Your task to perform on an android device: set default search engine in the chrome app Image 0: 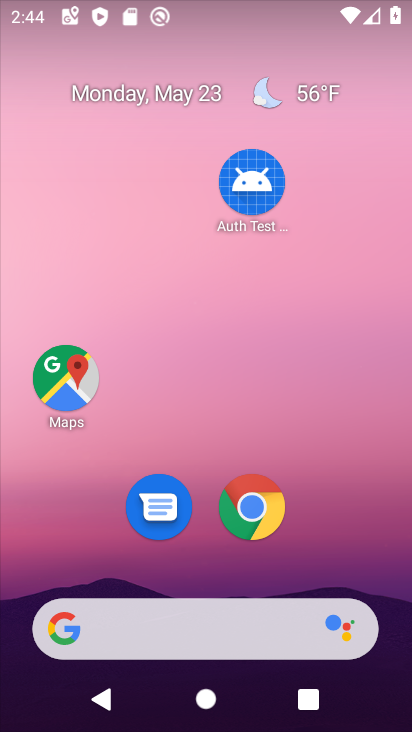
Step 0: drag from (270, 662) to (214, 21)
Your task to perform on an android device: set default search engine in the chrome app Image 1: 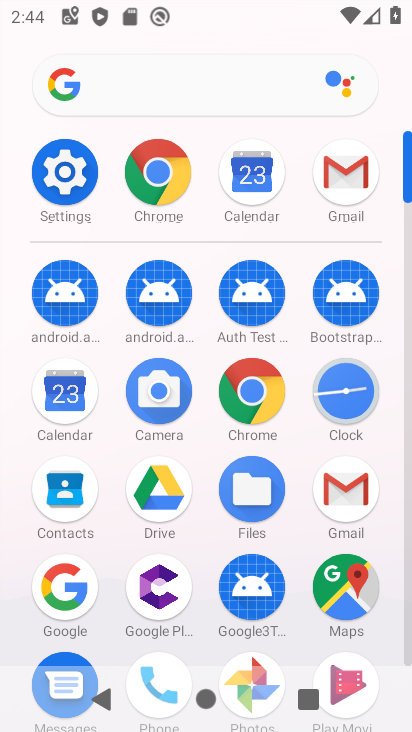
Step 1: click (154, 176)
Your task to perform on an android device: set default search engine in the chrome app Image 2: 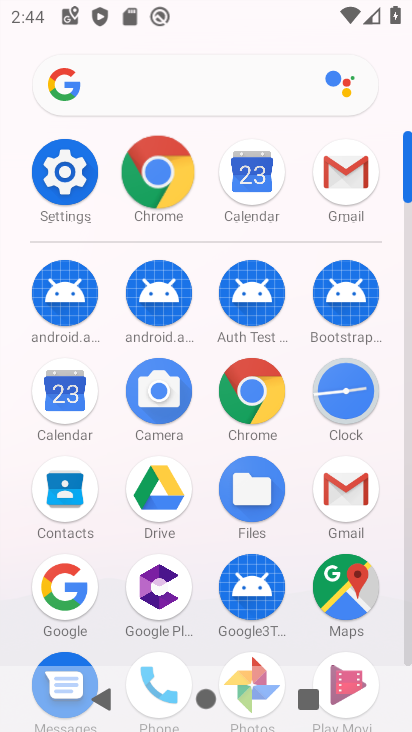
Step 2: click (154, 175)
Your task to perform on an android device: set default search engine in the chrome app Image 3: 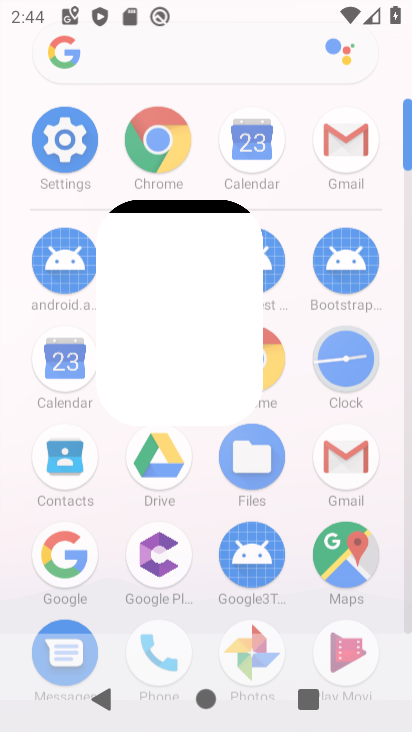
Step 3: click (154, 175)
Your task to perform on an android device: set default search engine in the chrome app Image 4: 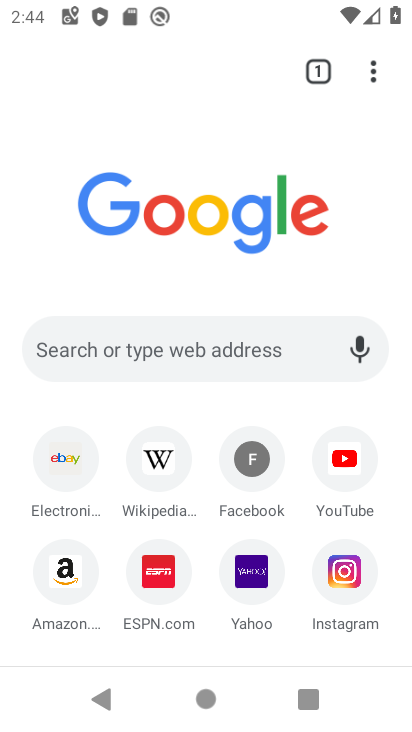
Step 4: drag from (371, 69) to (103, 496)
Your task to perform on an android device: set default search engine in the chrome app Image 5: 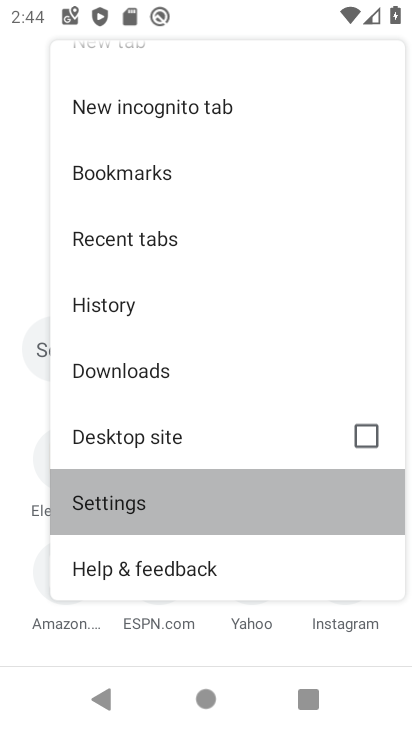
Step 5: click (103, 496)
Your task to perform on an android device: set default search engine in the chrome app Image 6: 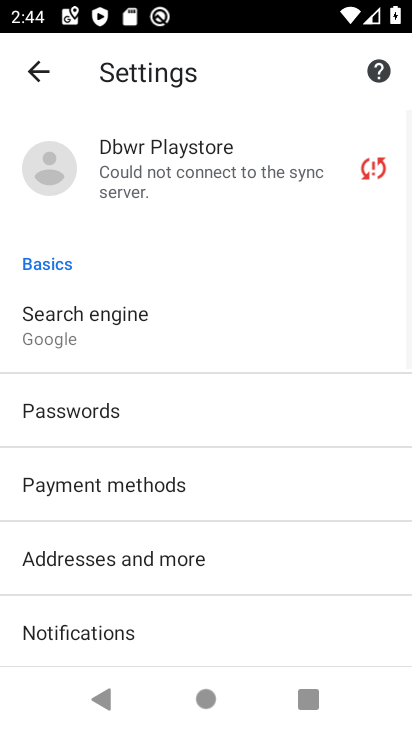
Step 6: drag from (159, 534) to (160, 95)
Your task to perform on an android device: set default search engine in the chrome app Image 7: 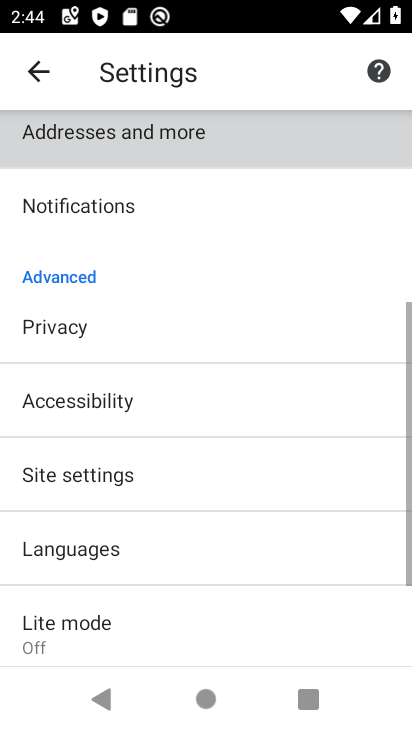
Step 7: drag from (204, 261) to (218, 97)
Your task to perform on an android device: set default search engine in the chrome app Image 8: 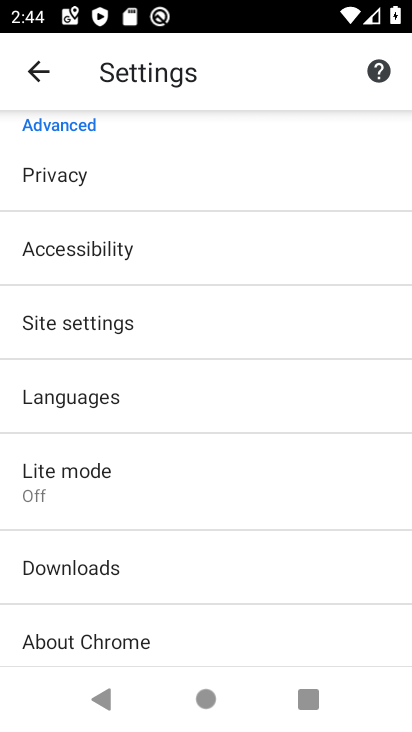
Step 8: drag from (49, 200) to (53, 600)
Your task to perform on an android device: set default search engine in the chrome app Image 9: 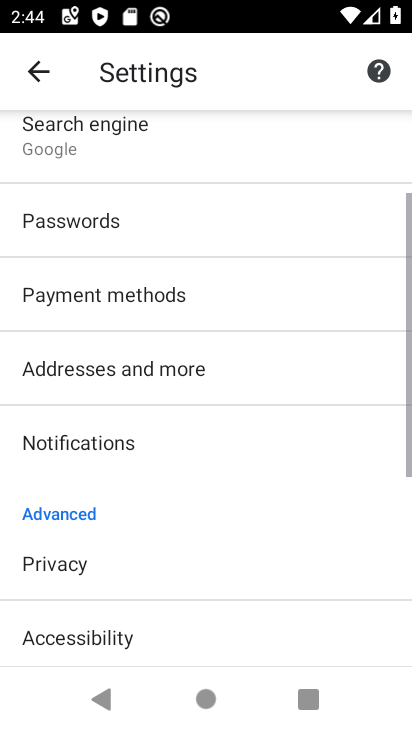
Step 9: drag from (58, 241) to (58, 557)
Your task to perform on an android device: set default search engine in the chrome app Image 10: 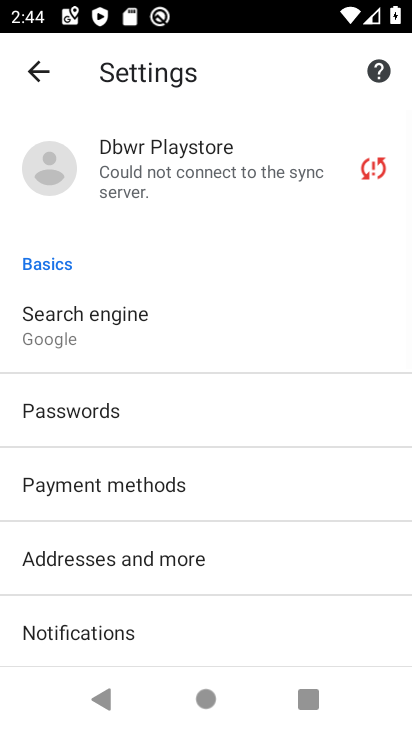
Step 10: drag from (75, 249) to (75, 651)
Your task to perform on an android device: set default search engine in the chrome app Image 11: 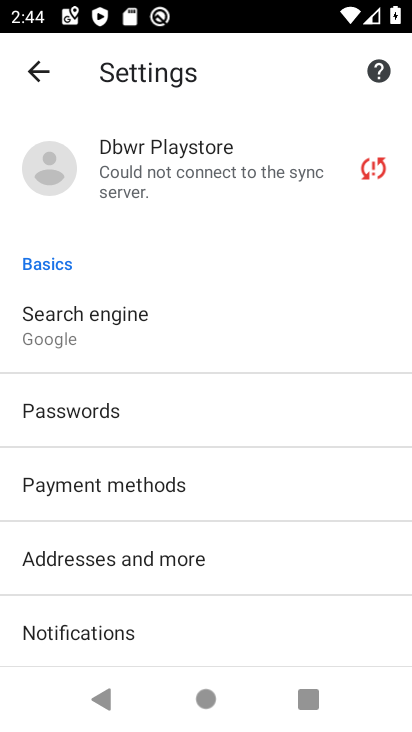
Step 11: click (84, 318)
Your task to perform on an android device: set default search engine in the chrome app Image 12: 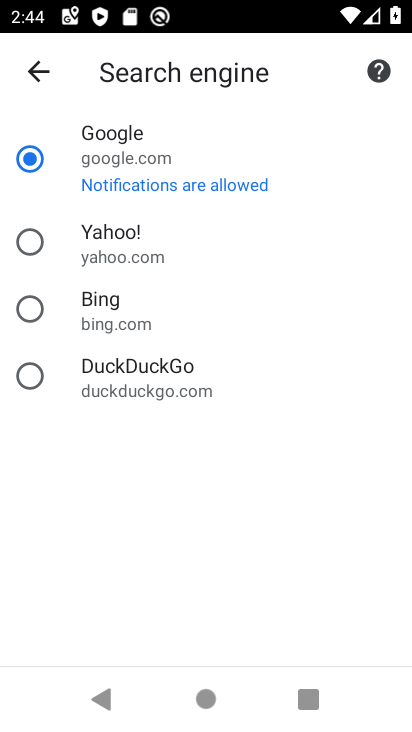
Step 12: task complete